Your task to perform on an android device: Open network settings Image 0: 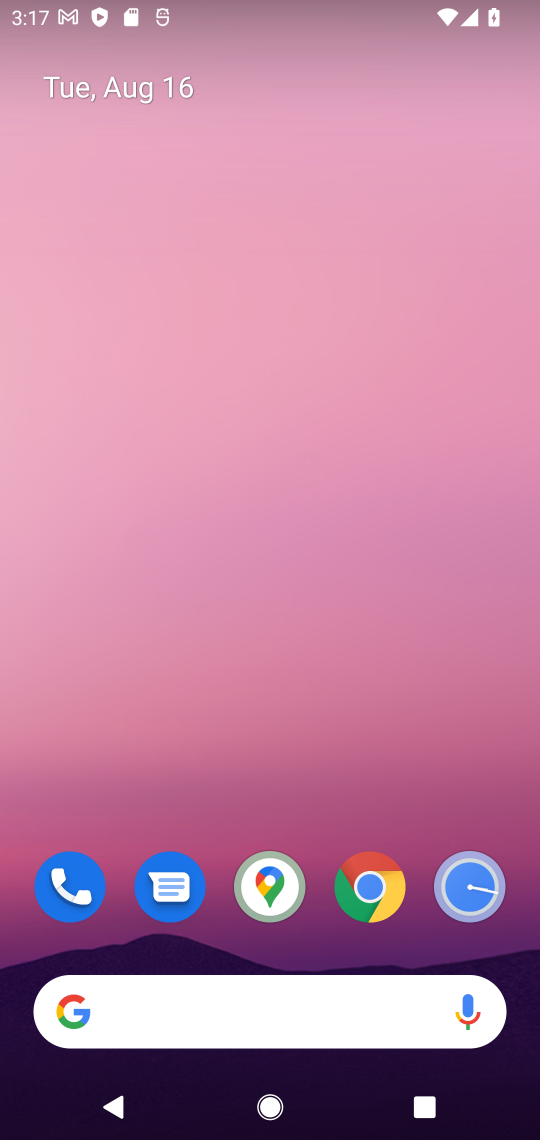
Step 0: drag from (270, 488) to (257, 37)
Your task to perform on an android device: Open network settings Image 1: 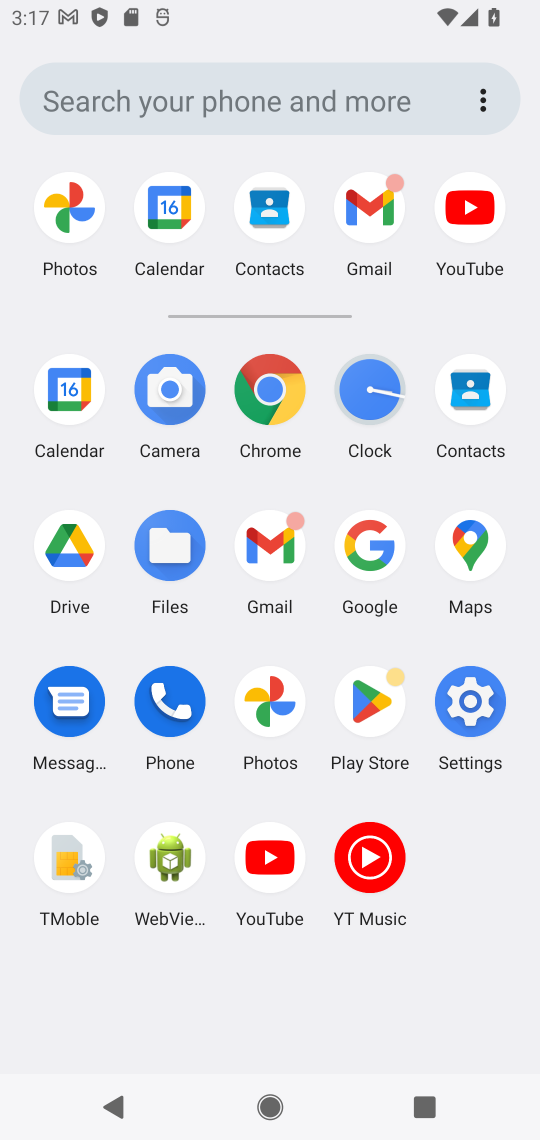
Step 1: click (476, 715)
Your task to perform on an android device: Open network settings Image 2: 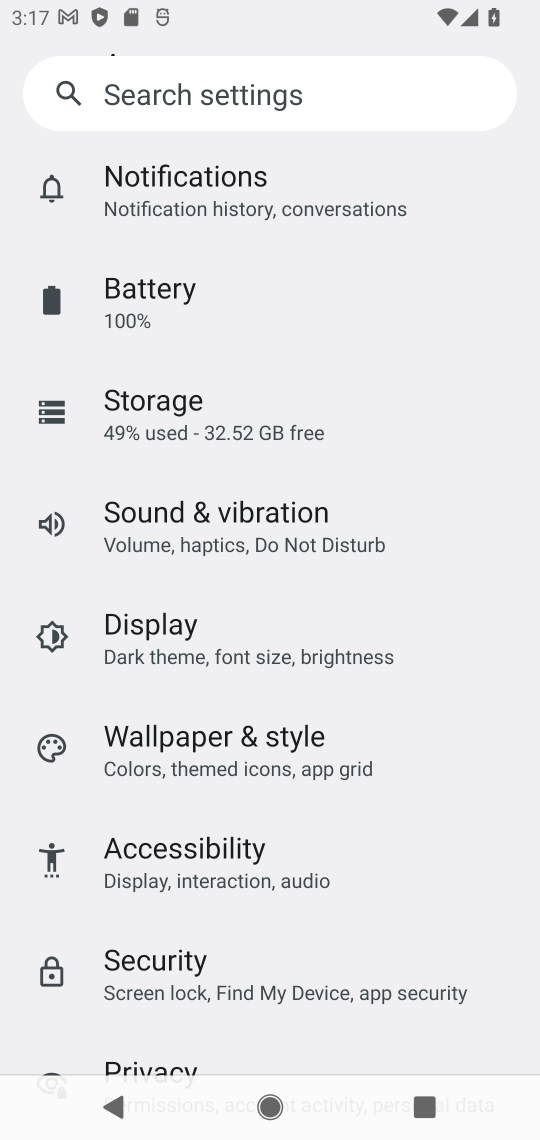
Step 2: drag from (301, 267) to (248, 921)
Your task to perform on an android device: Open network settings Image 3: 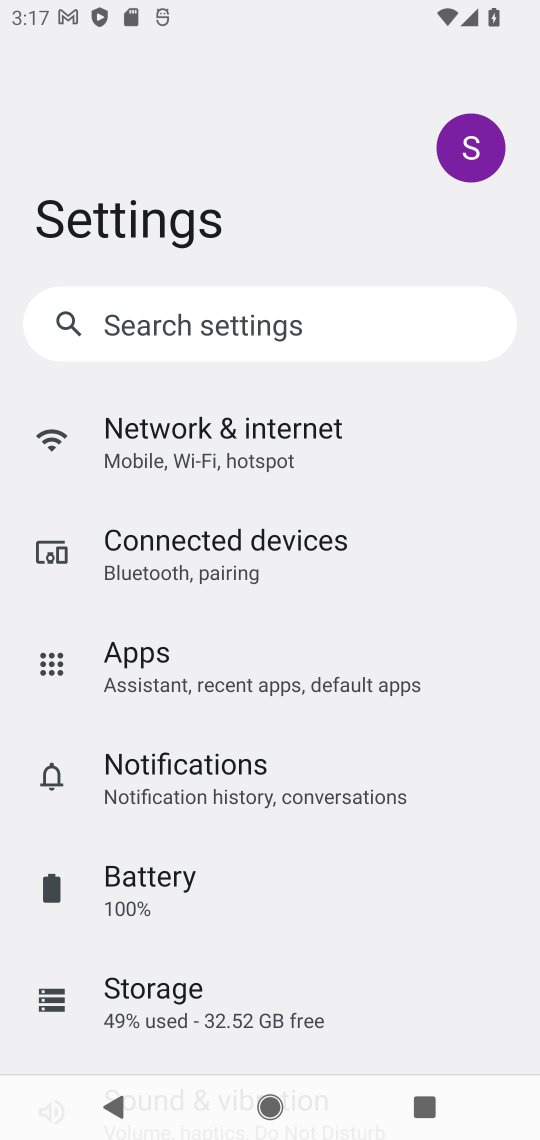
Step 3: click (197, 433)
Your task to perform on an android device: Open network settings Image 4: 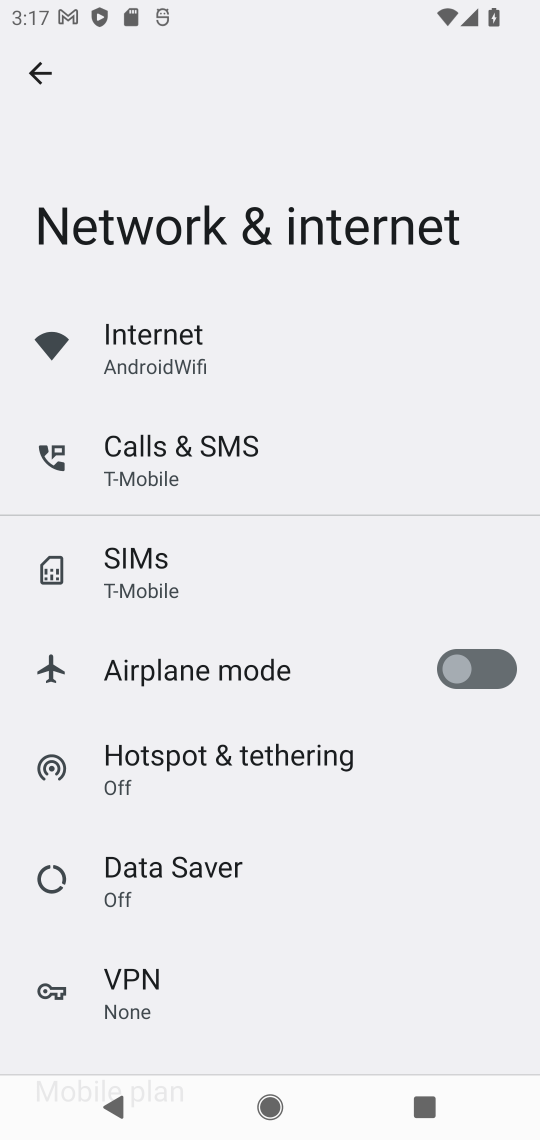
Step 4: task complete